Your task to perform on an android device: Open Chrome and go to the settings page Image 0: 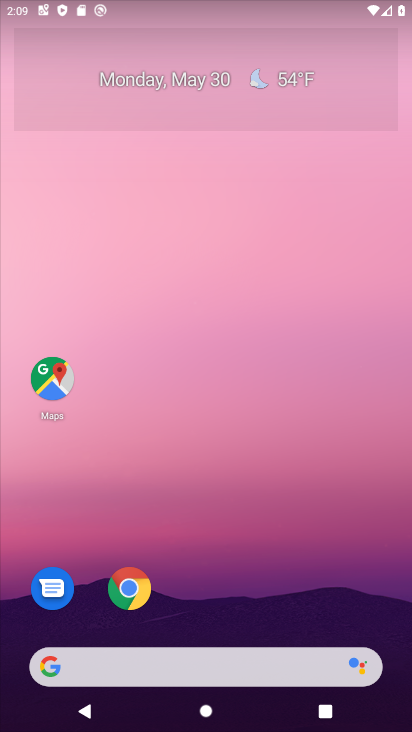
Step 0: click (127, 590)
Your task to perform on an android device: Open Chrome and go to the settings page Image 1: 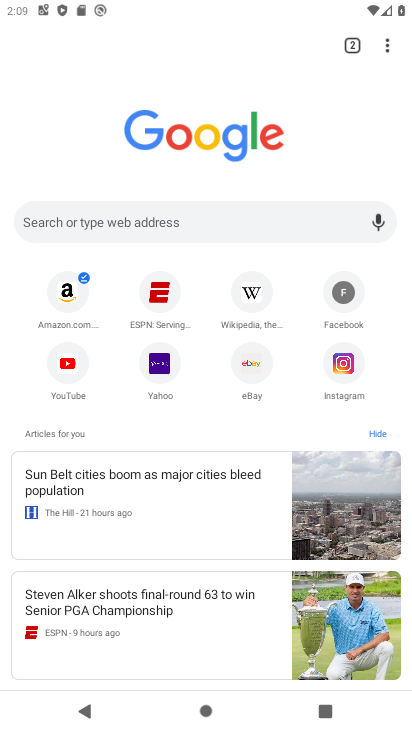
Step 1: click (379, 46)
Your task to perform on an android device: Open Chrome and go to the settings page Image 2: 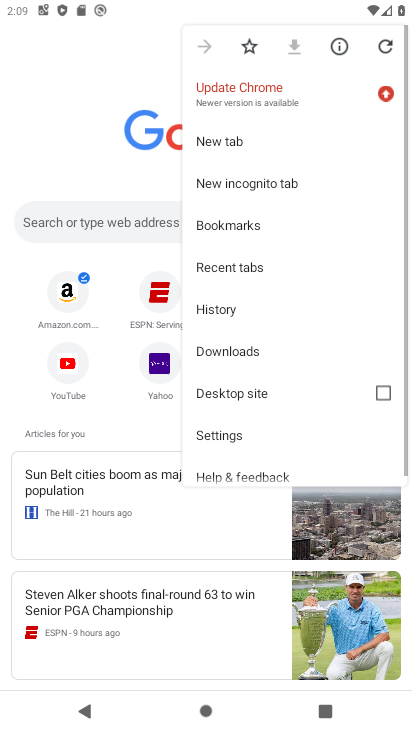
Step 2: click (234, 434)
Your task to perform on an android device: Open Chrome and go to the settings page Image 3: 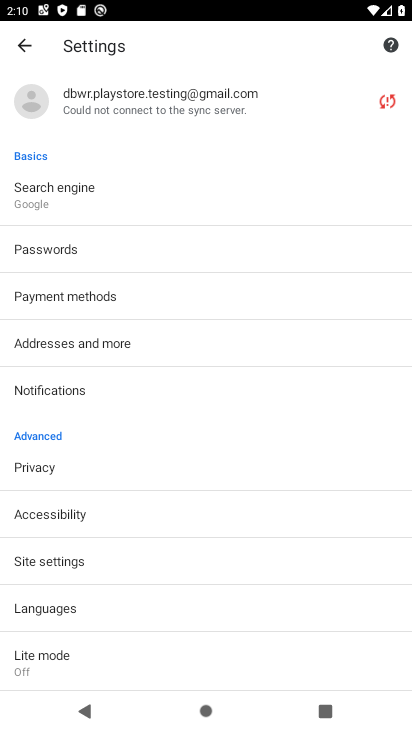
Step 3: task complete